Your task to perform on an android device: turn off smart reply in the gmail app Image 0: 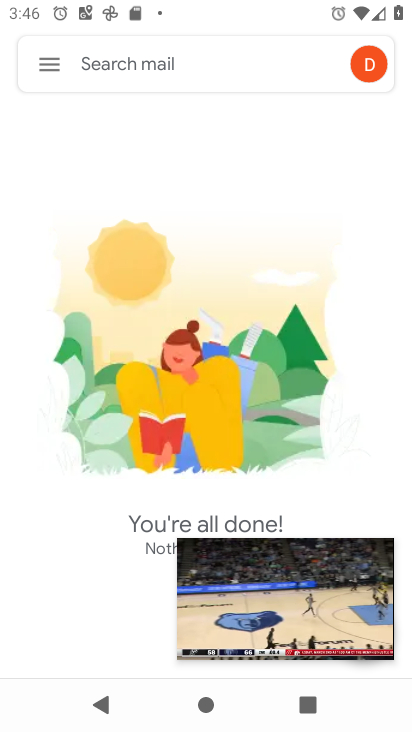
Step 0: press home button
Your task to perform on an android device: turn off smart reply in the gmail app Image 1: 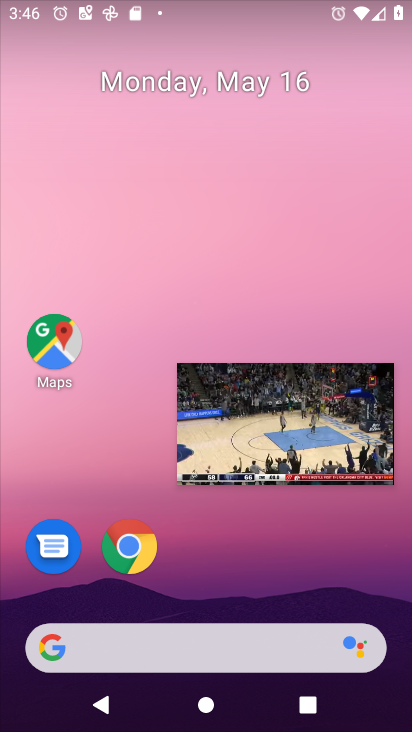
Step 1: drag from (353, 571) to (386, 111)
Your task to perform on an android device: turn off smart reply in the gmail app Image 2: 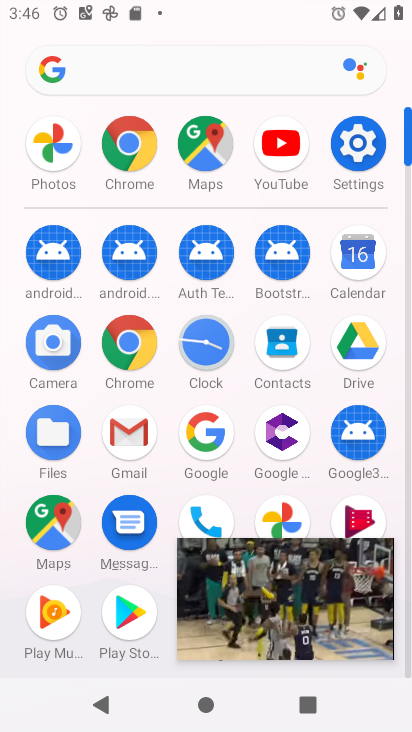
Step 2: click (149, 432)
Your task to perform on an android device: turn off smart reply in the gmail app Image 3: 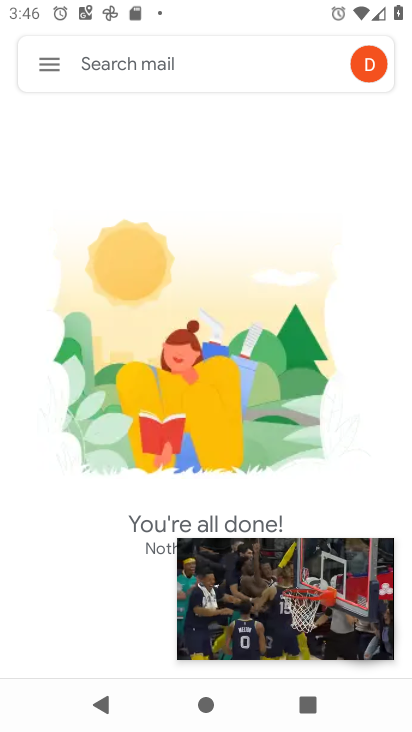
Step 3: click (55, 66)
Your task to perform on an android device: turn off smart reply in the gmail app Image 4: 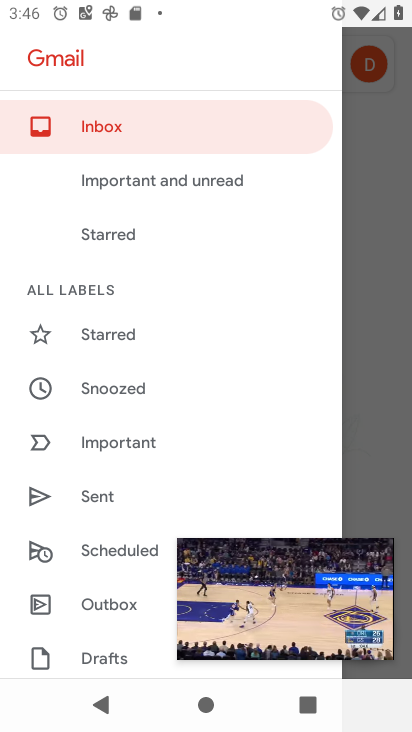
Step 4: drag from (213, 481) to (228, 314)
Your task to perform on an android device: turn off smart reply in the gmail app Image 5: 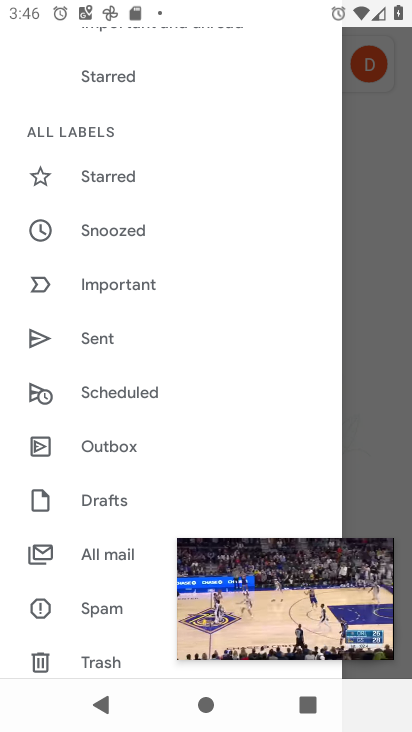
Step 5: drag from (240, 463) to (248, 321)
Your task to perform on an android device: turn off smart reply in the gmail app Image 6: 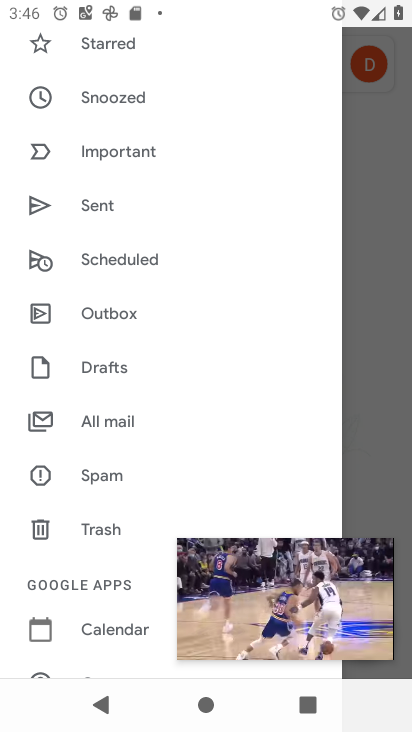
Step 6: drag from (245, 434) to (258, 304)
Your task to perform on an android device: turn off smart reply in the gmail app Image 7: 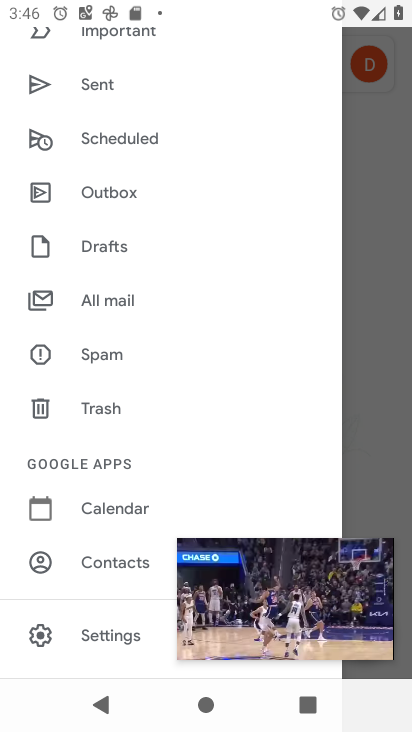
Step 7: drag from (239, 465) to (242, 340)
Your task to perform on an android device: turn off smart reply in the gmail app Image 8: 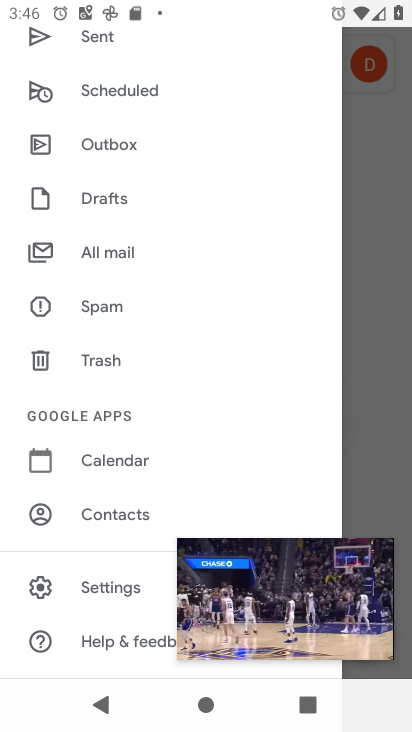
Step 8: click (110, 586)
Your task to perform on an android device: turn off smart reply in the gmail app Image 9: 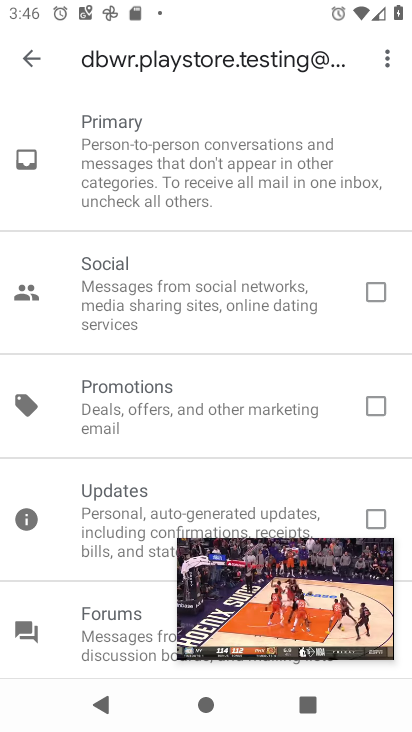
Step 9: click (48, 62)
Your task to perform on an android device: turn off smart reply in the gmail app Image 10: 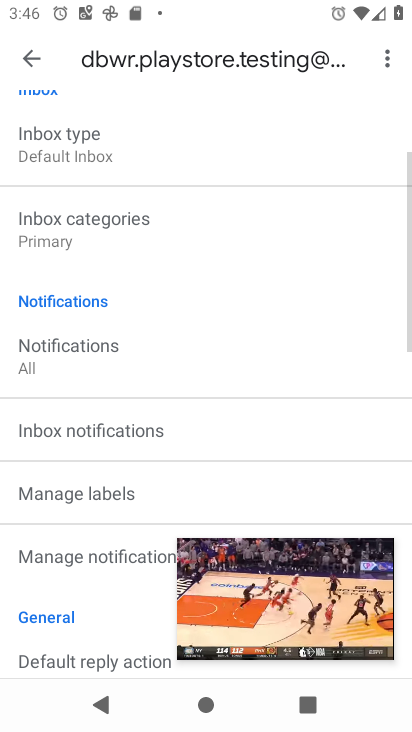
Step 10: drag from (246, 411) to (265, 254)
Your task to perform on an android device: turn off smart reply in the gmail app Image 11: 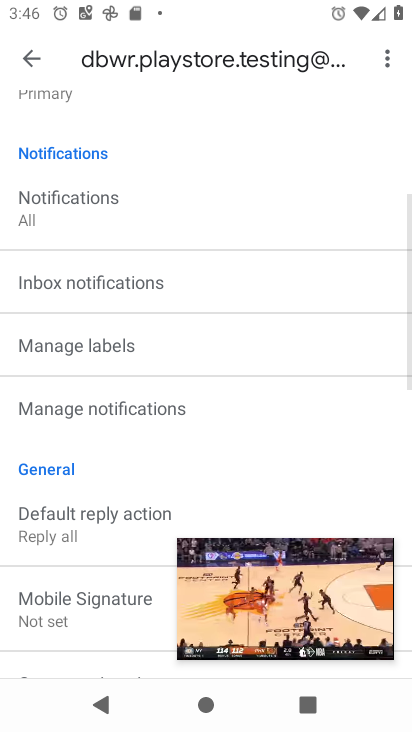
Step 11: drag from (284, 169) to (283, 400)
Your task to perform on an android device: turn off smart reply in the gmail app Image 12: 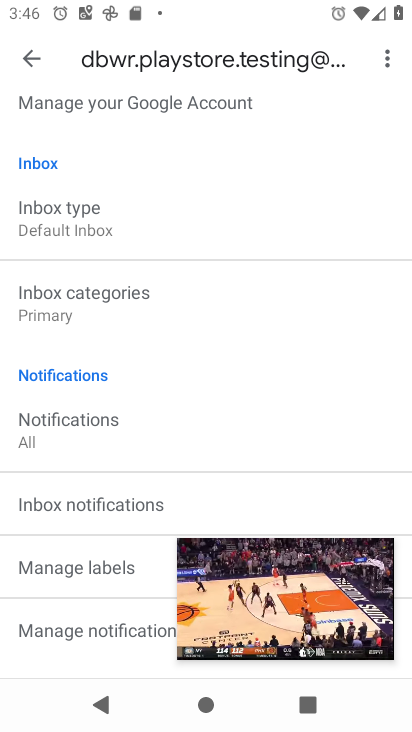
Step 12: drag from (292, 166) to (278, 404)
Your task to perform on an android device: turn off smart reply in the gmail app Image 13: 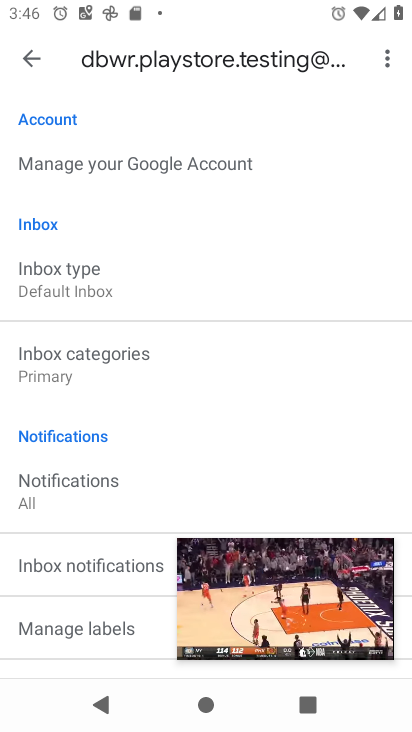
Step 13: drag from (290, 420) to (292, 288)
Your task to perform on an android device: turn off smart reply in the gmail app Image 14: 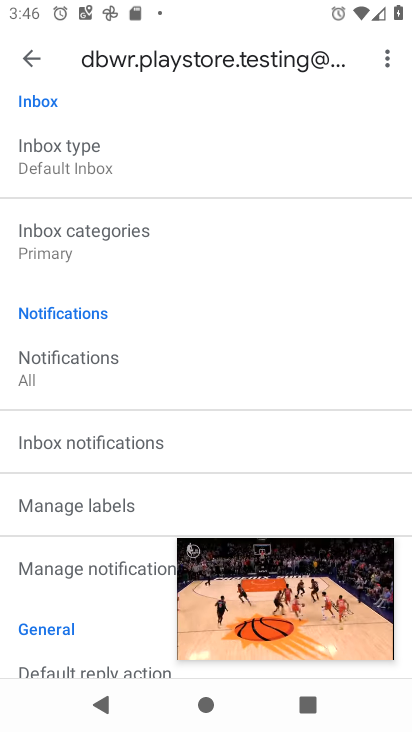
Step 14: drag from (259, 453) to (253, 287)
Your task to perform on an android device: turn off smart reply in the gmail app Image 15: 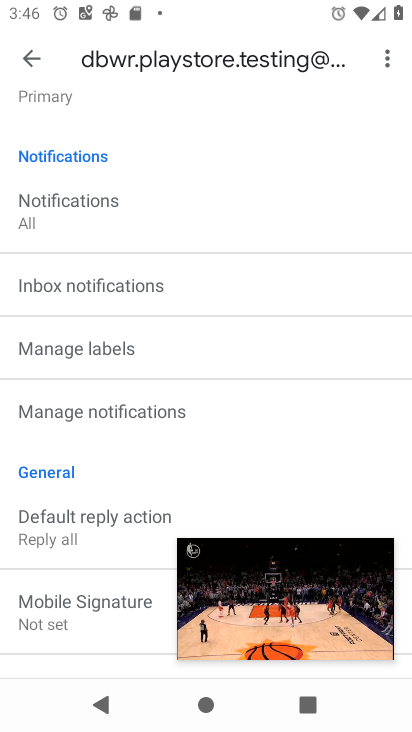
Step 15: drag from (269, 451) to (277, 302)
Your task to perform on an android device: turn off smart reply in the gmail app Image 16: 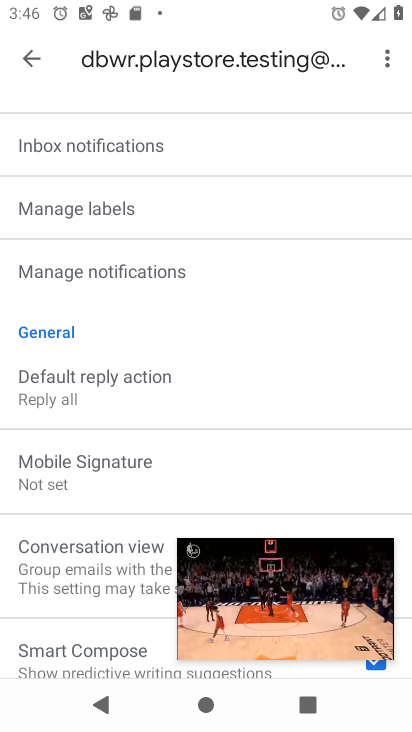
Step 16: drag from (268, 463) to (279, 300)
Your task to perform on an android device: turn off smart reply in the gmail app Image 17: 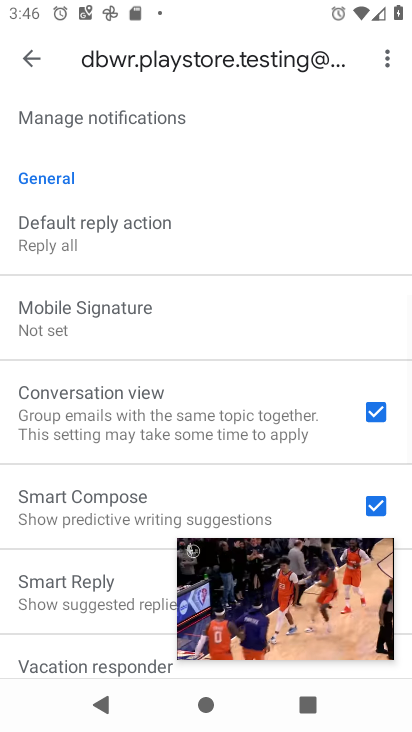
Step 17: drag from (219, 494) to (251, 278)
Your task to perform on an android device: turn off smart reply in the gmail app Image 18: 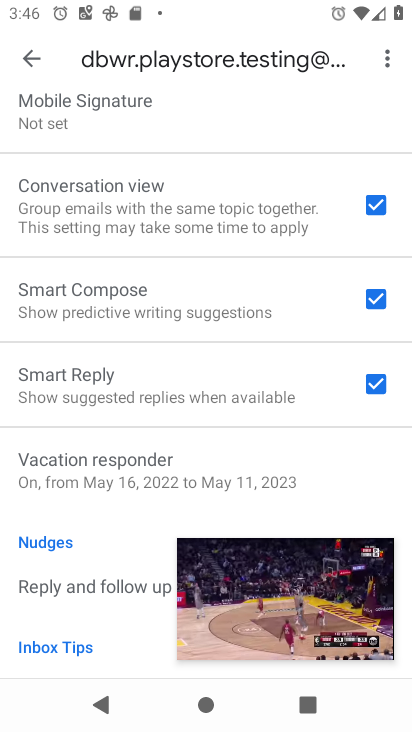
Step 18: click (364, 386)
Your task to perform on an android device: turn off smart reply in the gmail app Image 19: 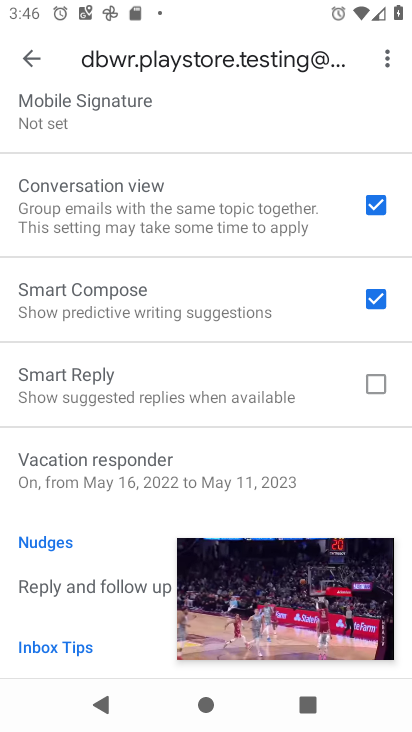
Step 19: task complete